Your task to perform on an android device: clear history in the chrome app Image 0: 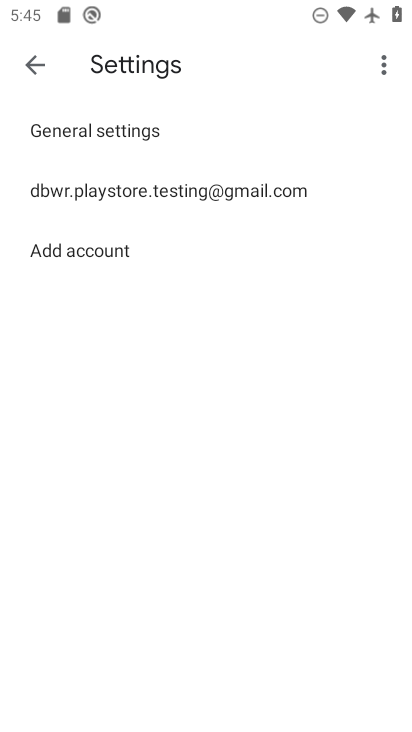
Step 0: press back button
Your task to perform on an android device: clear history in the chrome app Image 1: 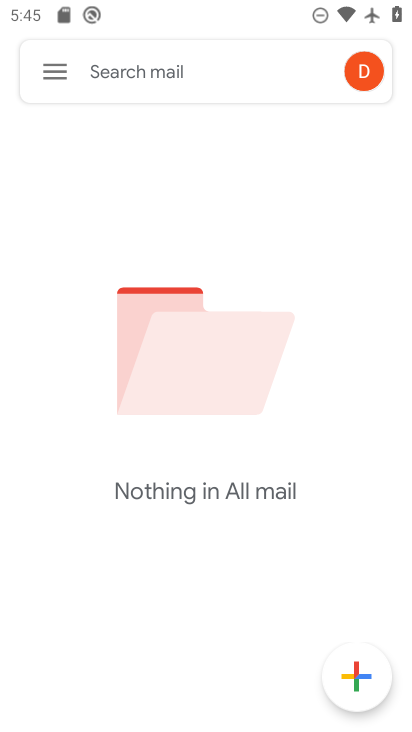
Step 1: press home button
Your task to perform on an android device: clear history in the chrome app Image 2: 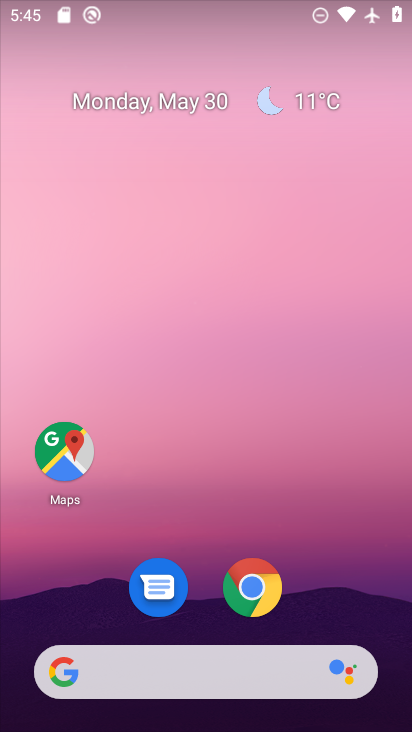
Step 2: drag from (330, 539) to (254, 22)
Your task to perform on an android device: clear history in the chrome app Image 3: 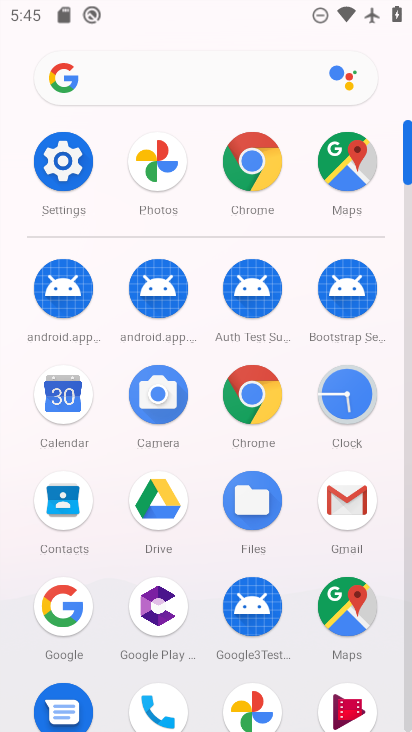
Step 3: drag from (12, 569) to (14, 247)
Your task to perform on an android device: clear history in the chrome app Image 4: 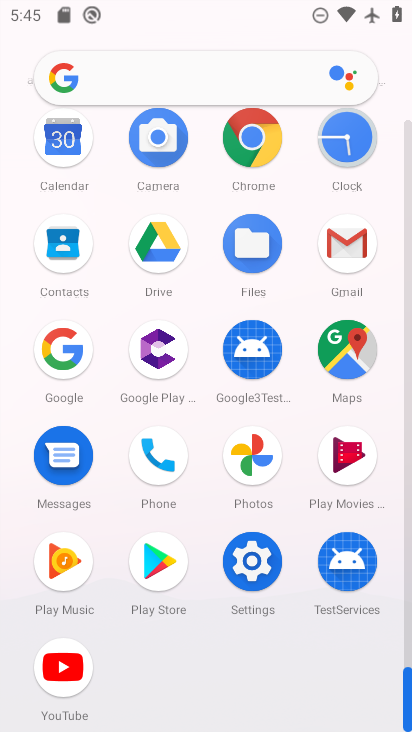
Step 4: click (255, 128)
Your task to perform on an android device: clear history in the chrome app Image 5: 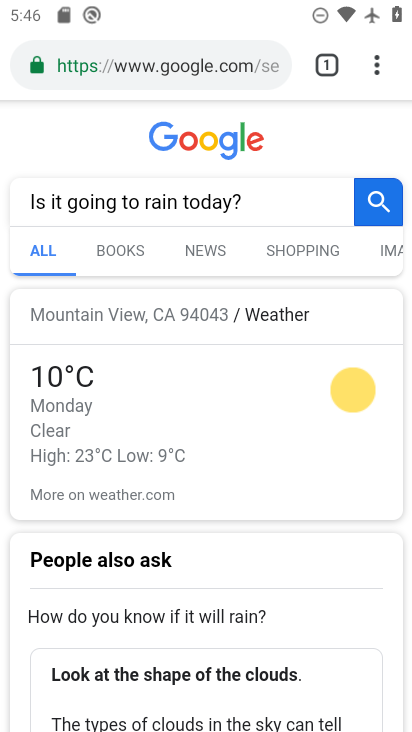
Step 5: drag from (376, 61) to (156, 369)
Your task to perform on an android device: clear history in the chrome app Image 6: 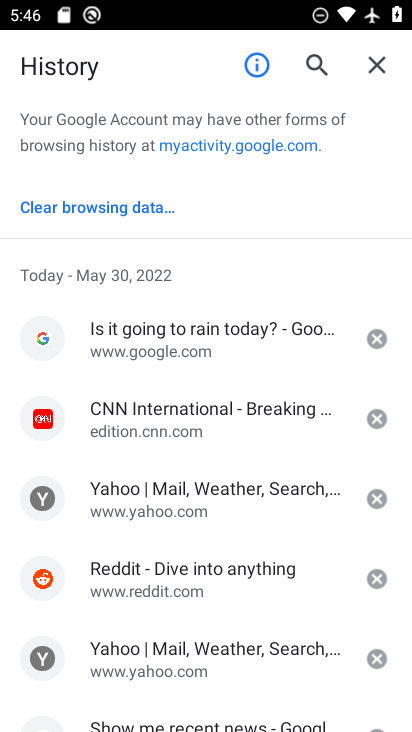
Step 6: click (145, 207)
Your task to perform on an android device: clear history in the chrome app Image 7: 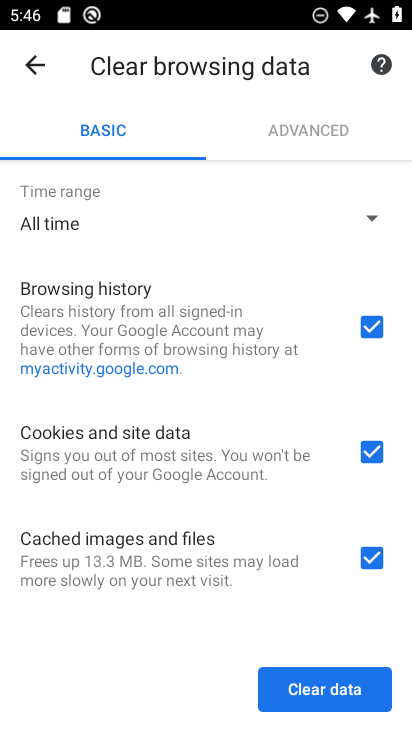
Step 7: click (318, 694)
Your task to perform on an android device: clear history in the chrome app Image 8: 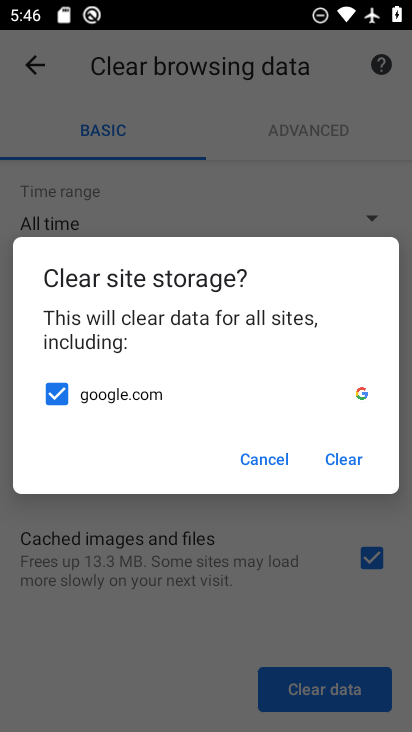
Step 8: click (352, 464)
Your task to perform on an android device: clear history in the chrome app Image 9: 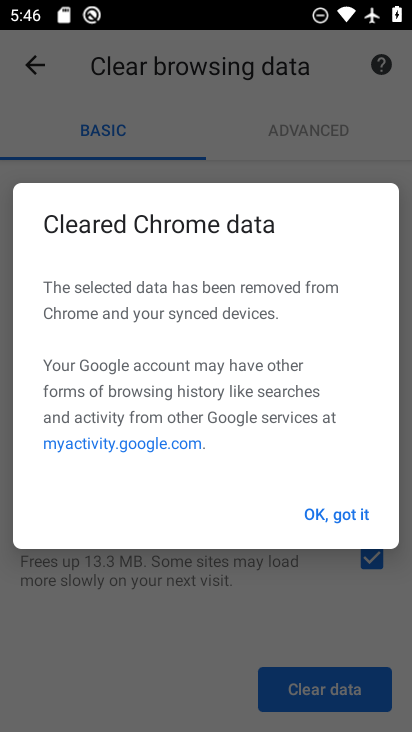
Step 9: click (325, 511)
Your task to perform on an android device: clear history in the chrome app Image 10: 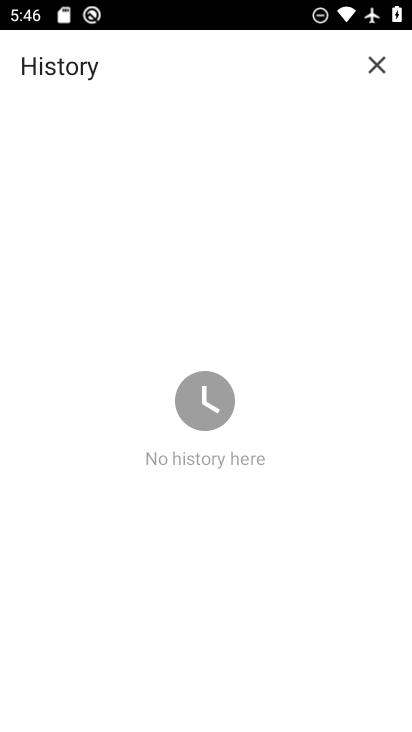
Step 10: task complete